Your task to perform on an android device: Is it going to rain today? Image 0: 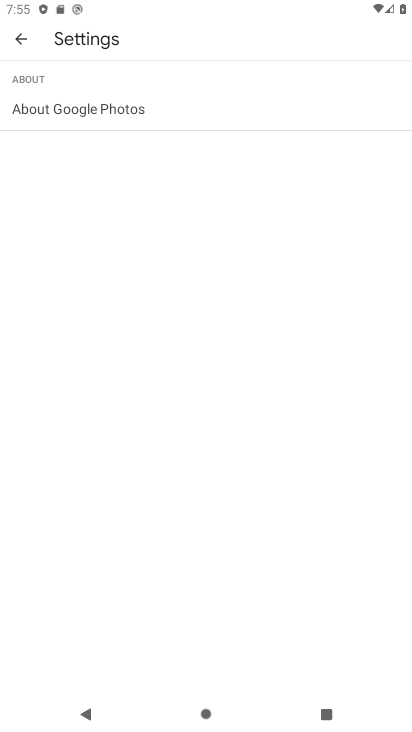
Step 0: press home button
Your task to perform on an android device: Is it going to rain today? Image 1: 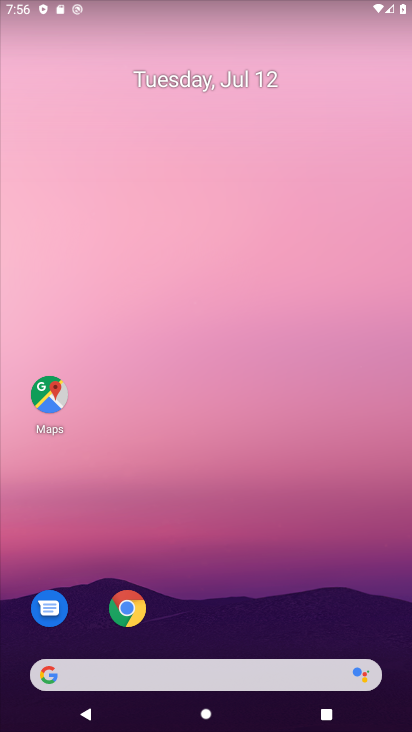
Step 1: drag from (297, 351) to (384, 332)
Your task to perform on an android device: Is it going to rain today? Image 2: 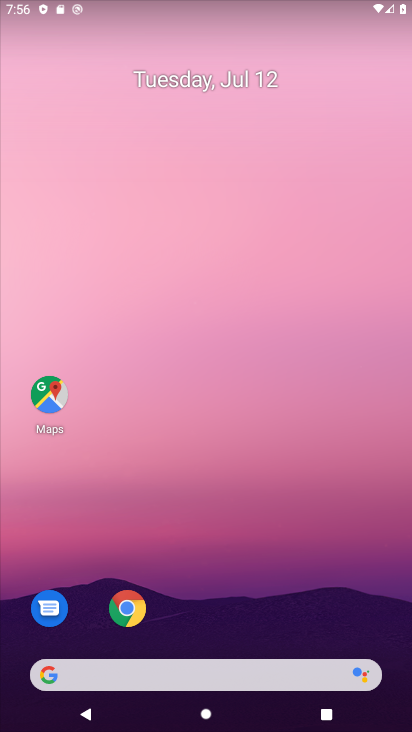
Step 2: drag from (74, 199) to (408, 211)
Your task to perform on an android device: Is it going to rain today? Image 3: 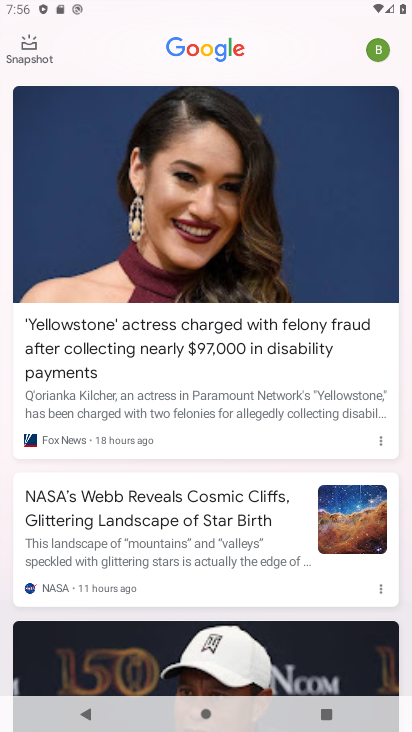
Step 3: drag from (184, 123) to (86, 605)
Your task to perform on an android device: Is it going to rain today? Image 4: 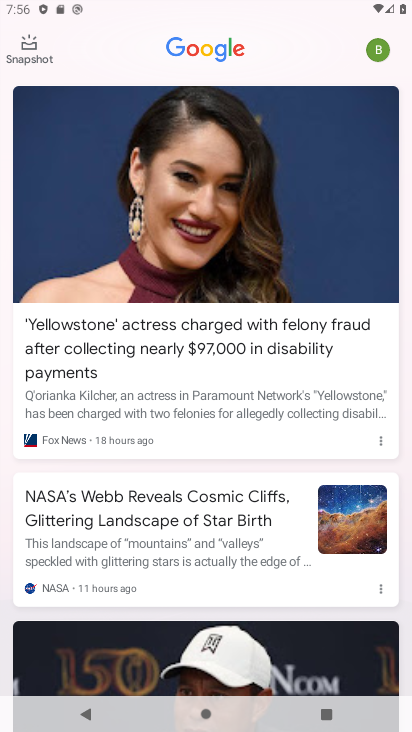
Step 4: drag from (81, 56) to (118, 689)
Your task to perform on an android device: Is it going to rain today? Image 5: 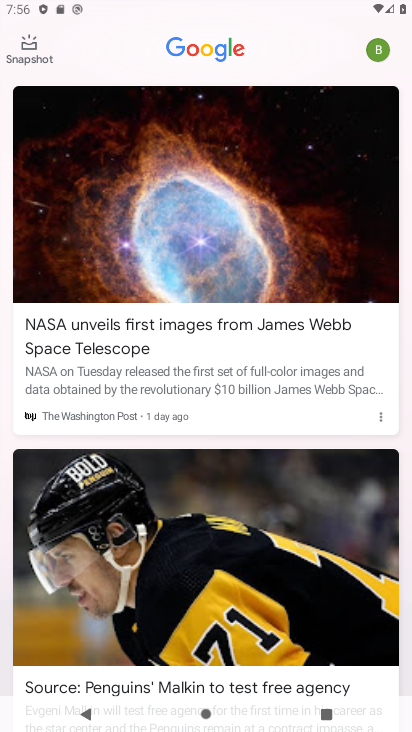
Step 5: press home button
Your task to perform on an android device: Is it going to rain today? Image 6: 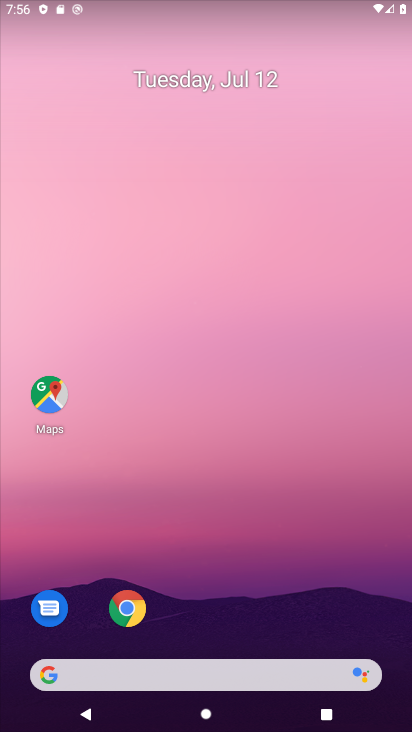
Step 6: click (183, 676)
Your task to perform on an android device: Is it going to rain today? Image 7: 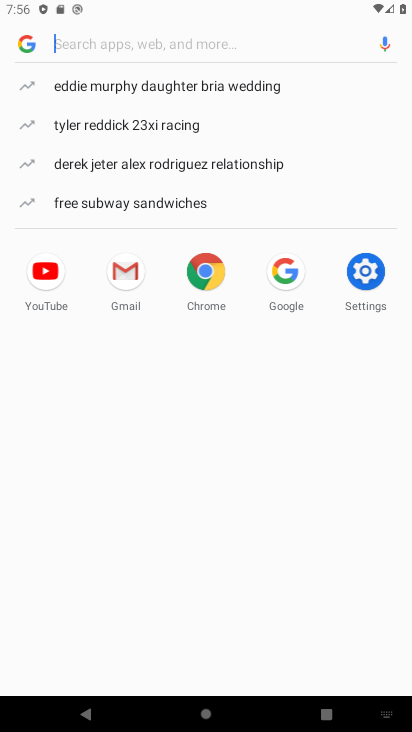
Step 7: type "Is it going to rain today"
Your task to perform on an android device: Is it going to rain today? Image 8: 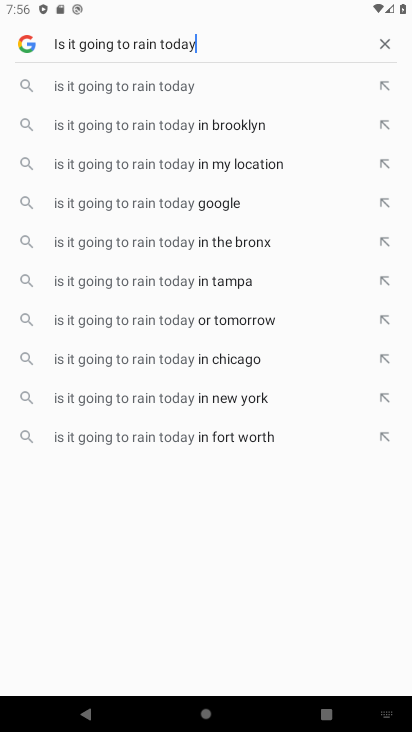
Step 8: click (123, 93)
Your task to perform on an android device: Is it going to rain today? Image 9: 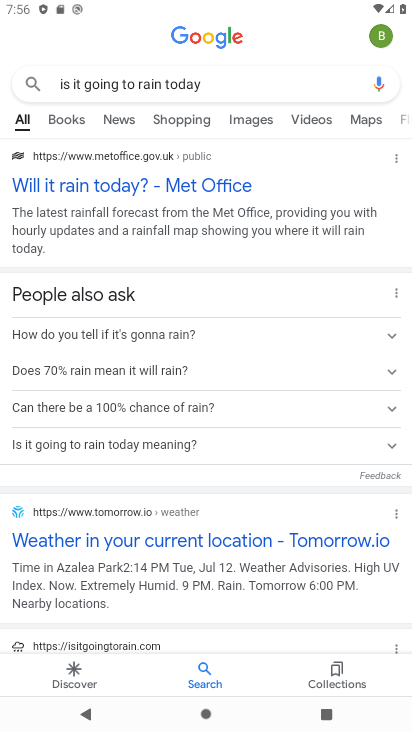
Step 9: click (202, 192)
Your task to perform on an android device: Is it going to rain today? Image 10: 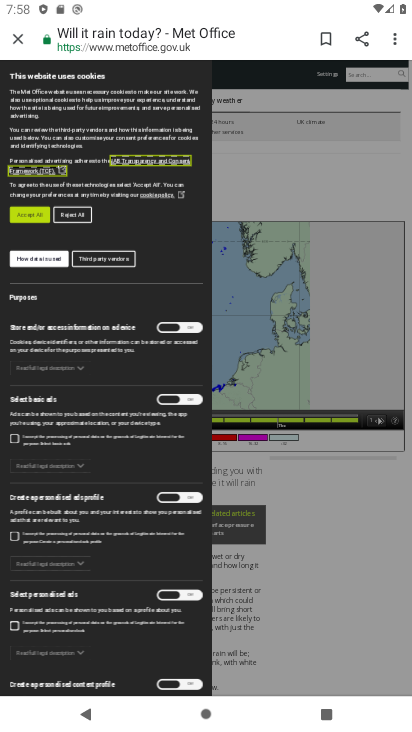
Step 10: task complete